Your task to perform on an android device: What is the news today? Image 0: 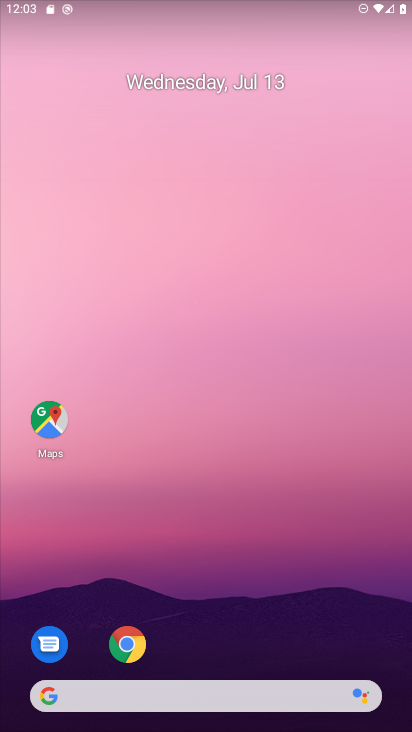
Step 0: click (207, 701)
Your task to perform on an android device: What is the news today? Image 1: 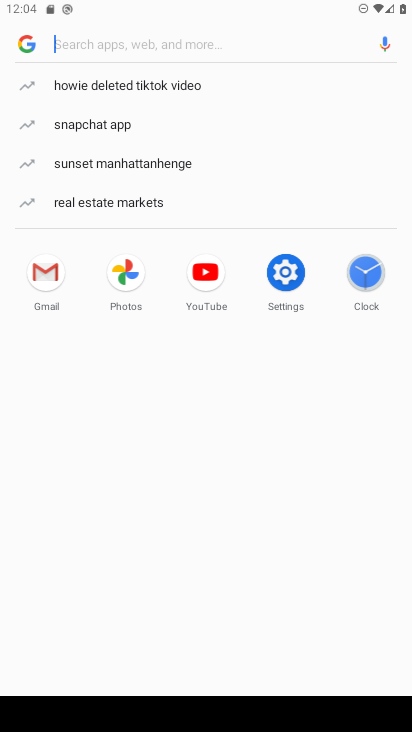
Step 1: type "news today "
Your task to perform on an android device: What is the news today? Image 2: 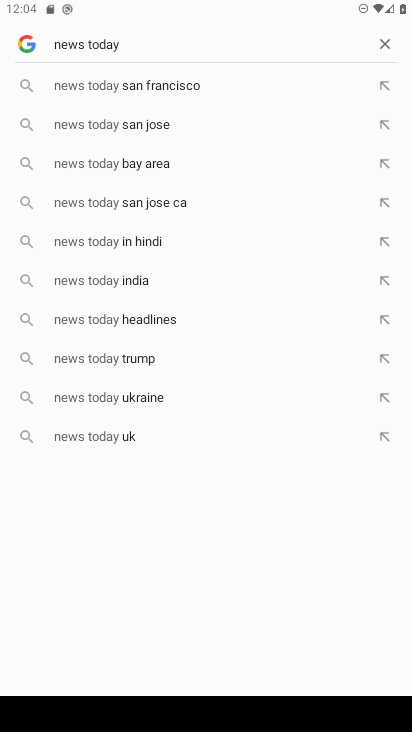
Step 2: press enter
Your task to perform on an android device: What is the news today? Image 3: 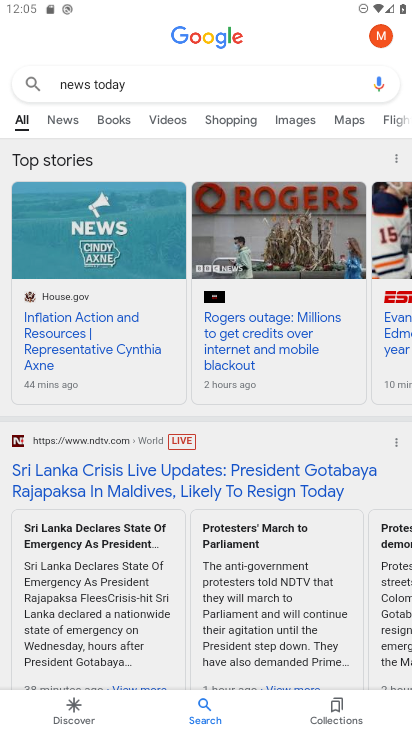
Step 3: task complete